Your task to perform on an android device: Go to Google maps Image 0: 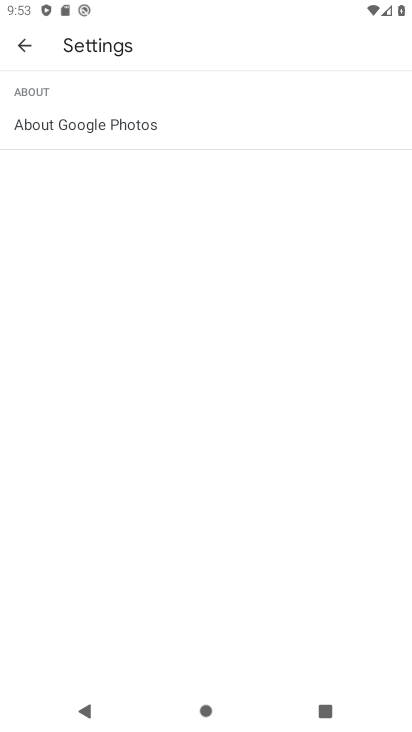
Step 0: press home button
Your task to perform on an android device: Go to Google maps Image 1: 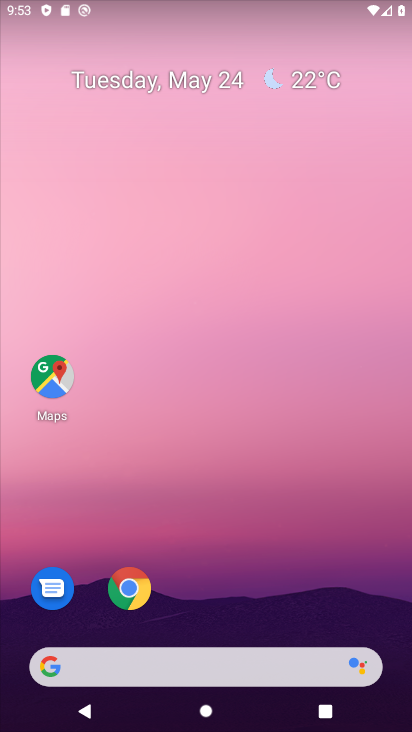
Step 1: click (47, 381)
Your task to perform on an android device: Go to Google maps Image 2: 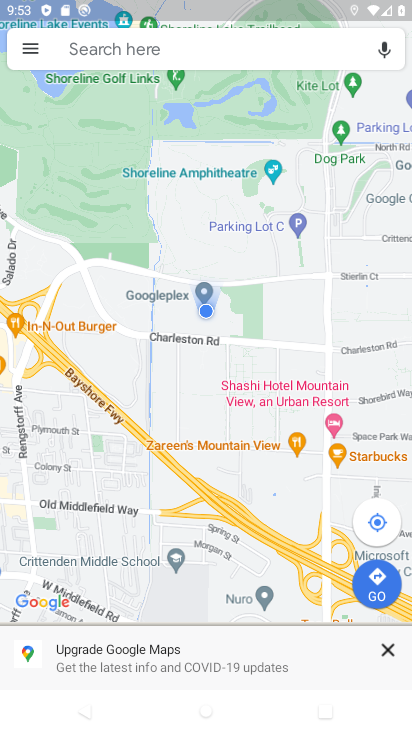
Step 2: task complete